Your task to perform on an android device: Go to internet settings Image 0: 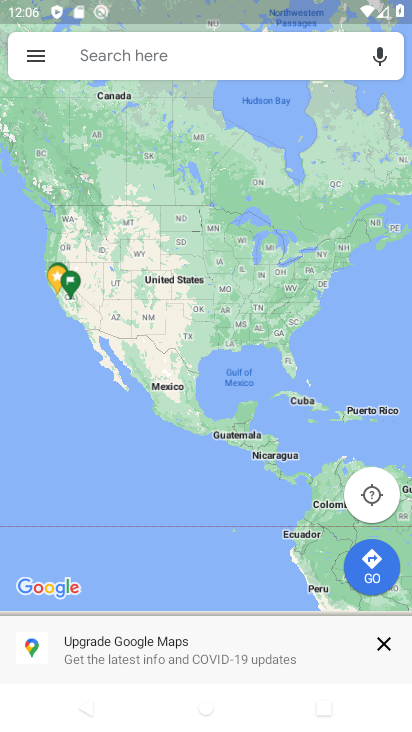
Step 0: press home button
Your task to perform on an android device: Go to internet settings Image 1: 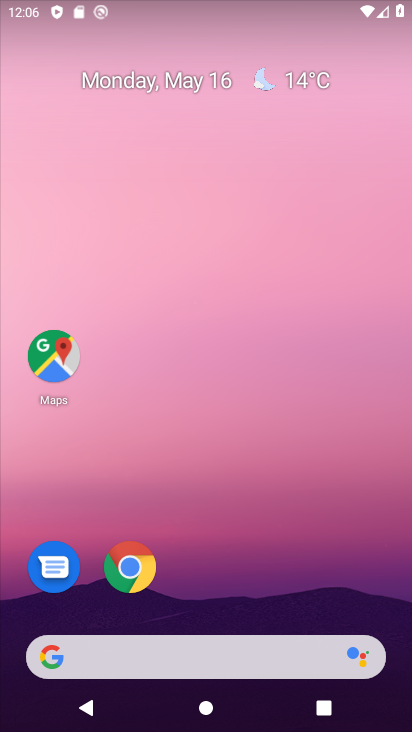
Step 1: drag from (255, 453) to (159, 21)
Your task to perform on an android device: Go to internet settings Image 2: 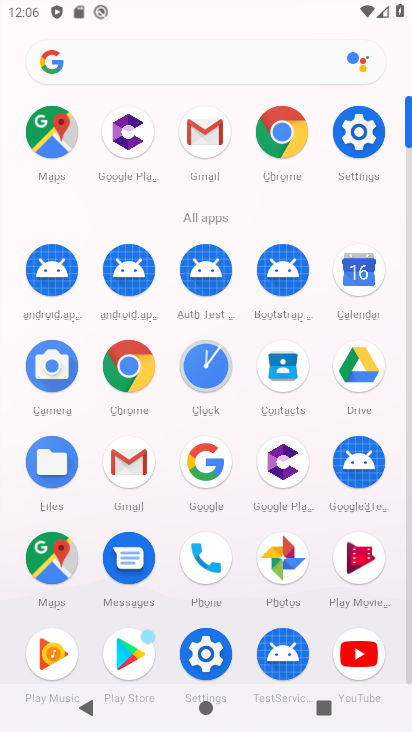
Step 2: click (351, 131)
Your task to perform on an android device: Go to internet settings Image 3: 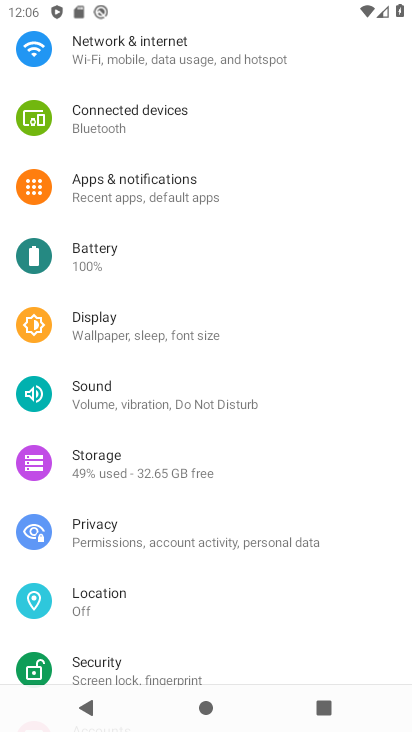
Step 3: drag from (221, 136) to (300, 688)
Your task to perform on an android device: Go to internet settings Image 4: 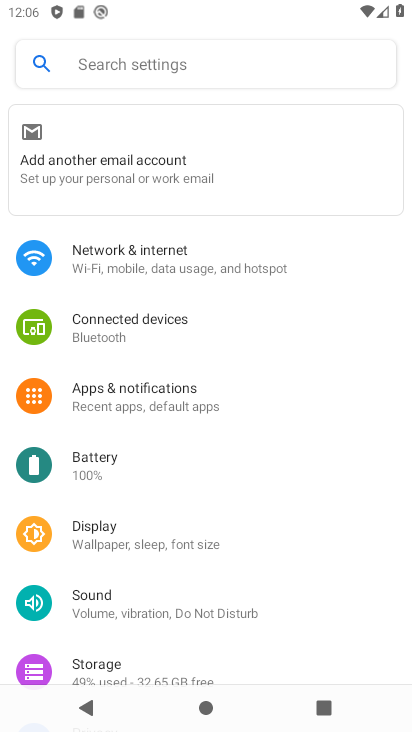
Step 4: click (147, 247)
Your task to perform on an android device: Go to internet settings Image 5: 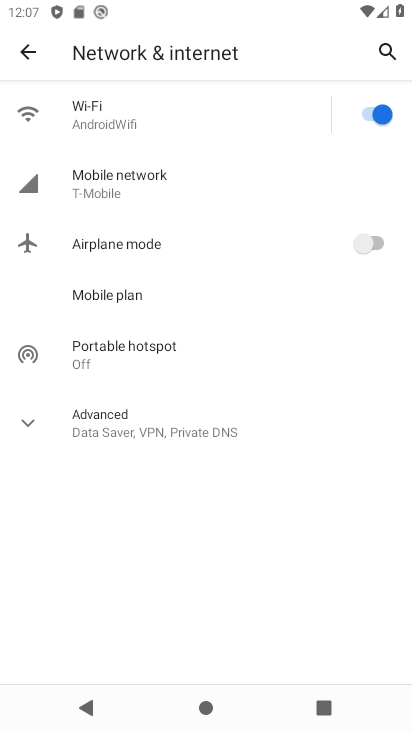
Step 5: task complete